Your task to perform on an android device: turn on priority inbox in the gmail app Image 0: 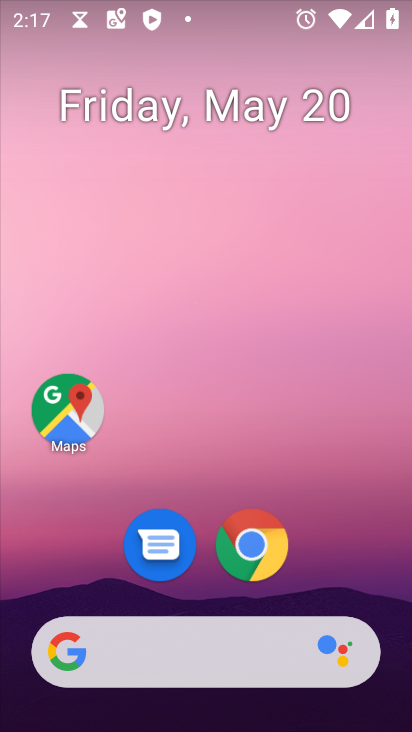
Step 0: drag from (337, 552) to (343, 111)
Your task to perform on an android device: turn on priority inbox in the gmail app Image 1: 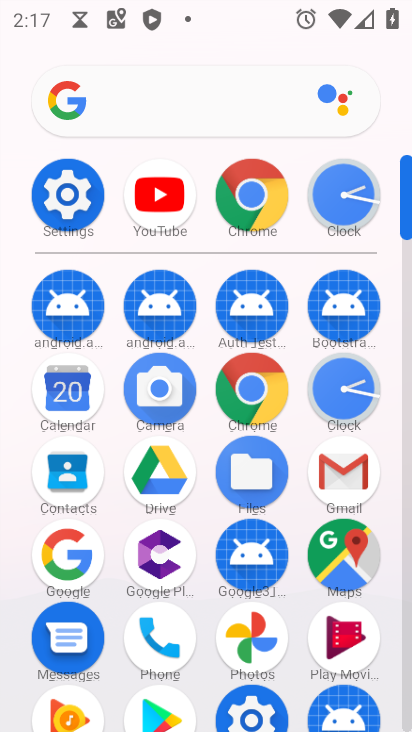
Step 1: click (347, 487)
Your task to perform on an android device: turn on priority inbox in the gmail app Image 2: 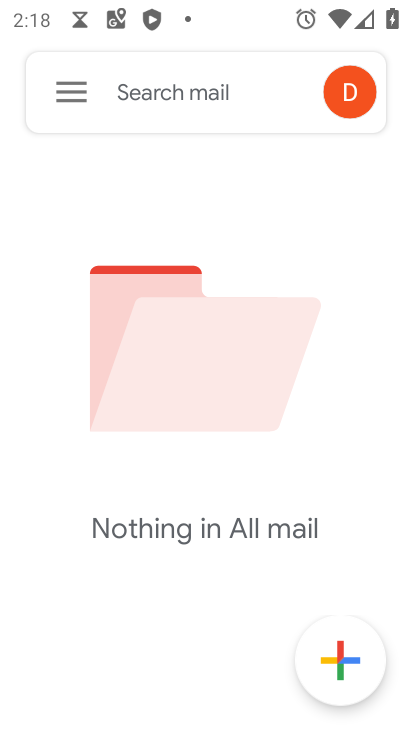
Step 2: click (76, 90)
Your task to perform on an android device: turn on priority inbox in the gmail app Image 3: 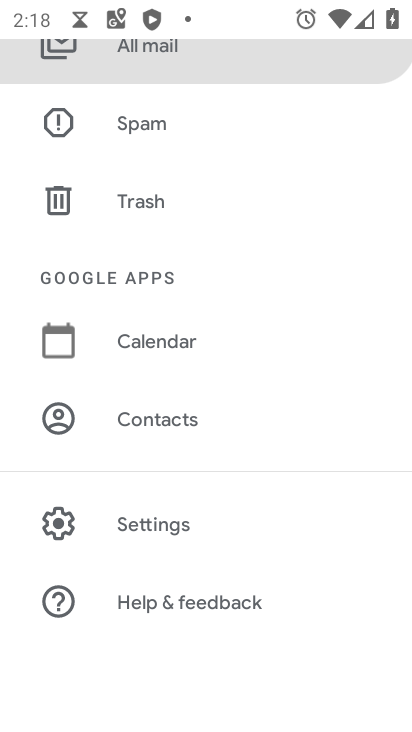
Step 3: click (150, 521)
Your task to perform on an android device: turn on priority inbox in the gmail app Image 4: 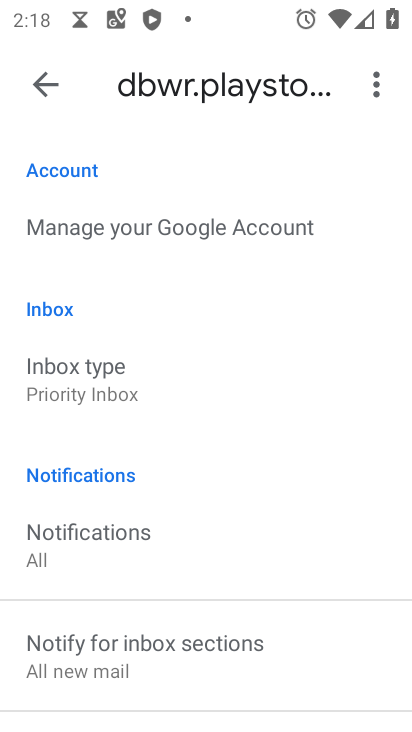
Step 4: task complete